Your task to perform on an android device: delete the emails in spam in the gmail app Image 0: 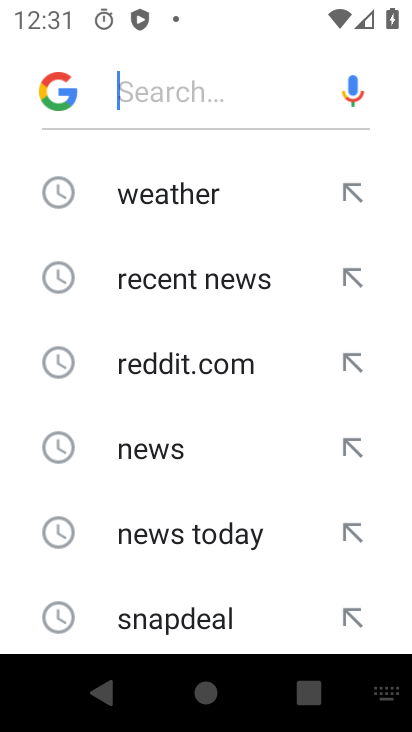
Step 0: press home button
Your task to perform on an android device: delete the emails in spam in the gmail app Image 1: 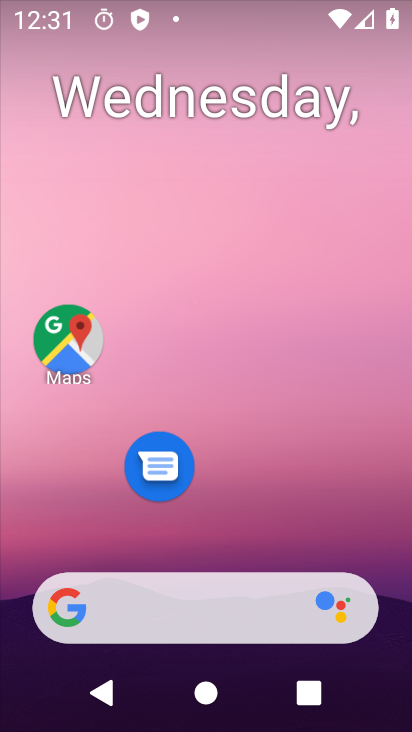
Step 1: drag from (286, 543) to (261, 82)
Your task to perform on an android device: delete the emails in spam in the gmail app Image 2: 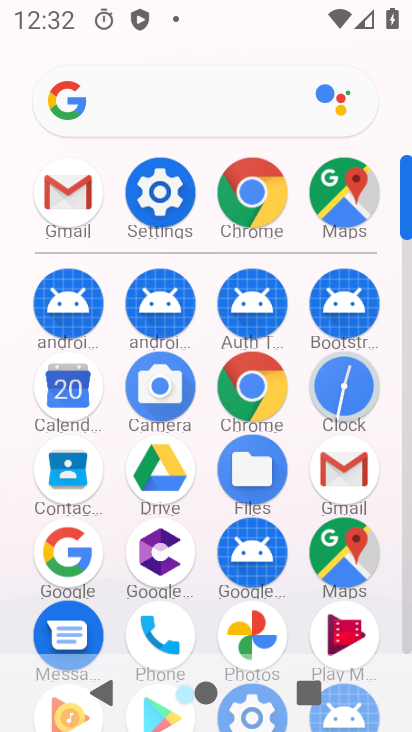
Step 2: click (87, 215)
Your task to perform on an android device: delete the emails in spam in the gmail app Image 3: 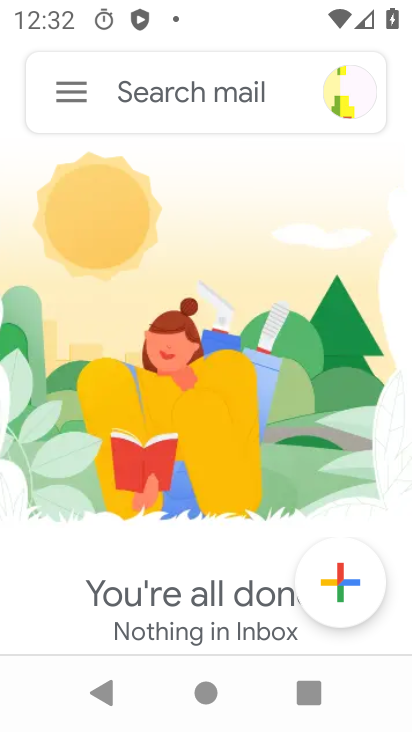
Step 3: click (54, 104)
Your task to perform on an android device: delete the emails in spam in the gmail app Image 4: 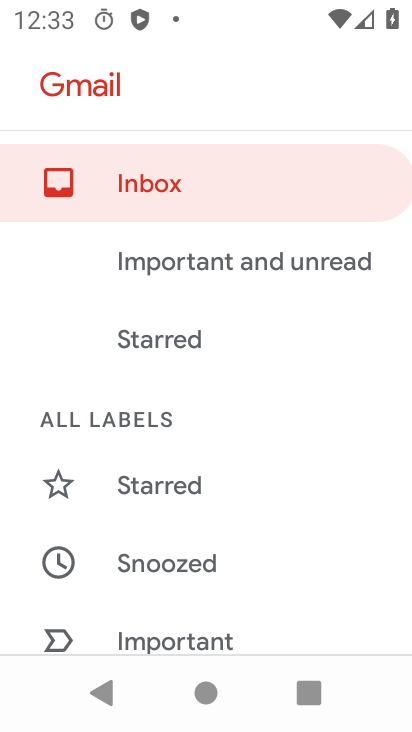
Step 4: drag from (151, 571) to (152, 204)
Your task to perform on an android device: delete the emails in spam in the gmail app Image 5: 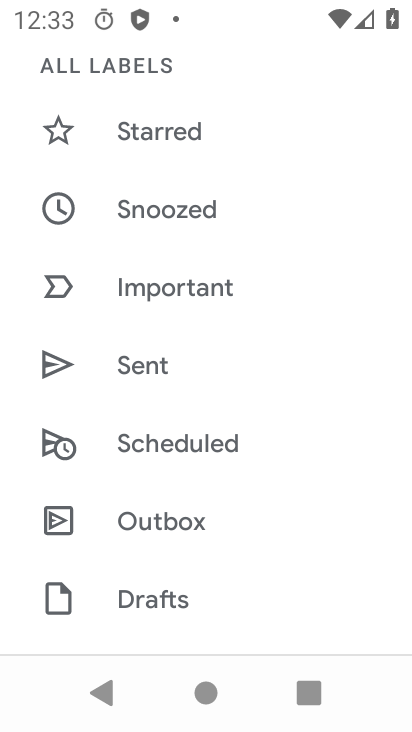
Step 5: drag from (148, 441) to (200, 165)
Your task to perform on an android device: delete the emails in spam in the gmail app Image 6: 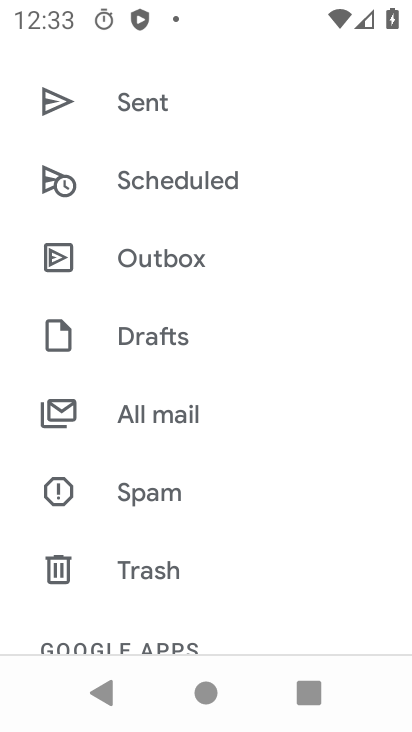
Step 6: click (209, 424)
Your task to perform on an android device: delete the emails in spam in the gmail app Image 7: 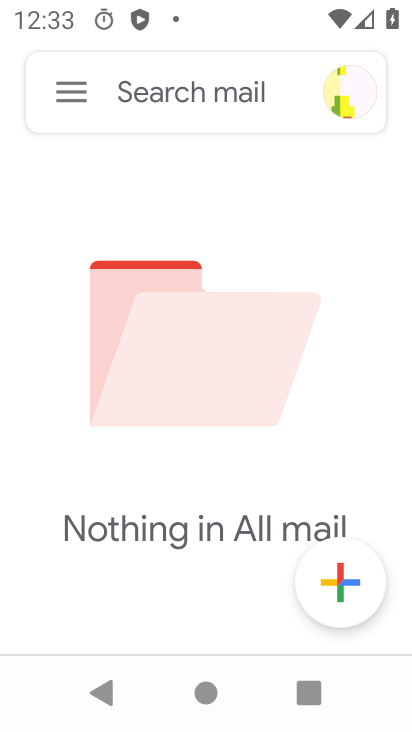
Step 7: task complete